Your task to perform on an android device: Do I have any events tomorrow? Image 0: 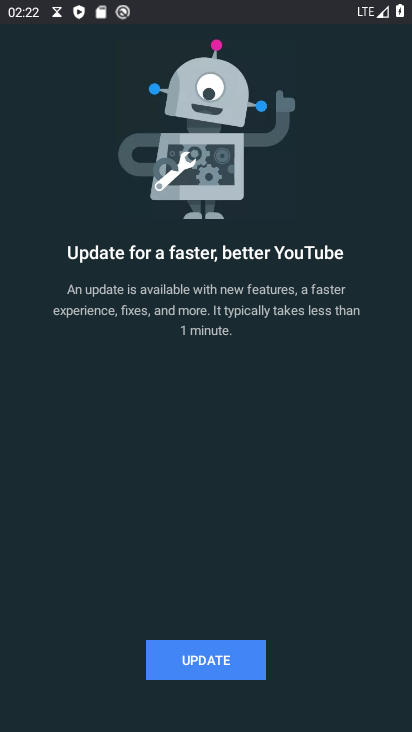
Step 0: drag from (236, 641) to (329, 551)
Your task to perform on an android device: Do I have any events tomorrow? Image 1: 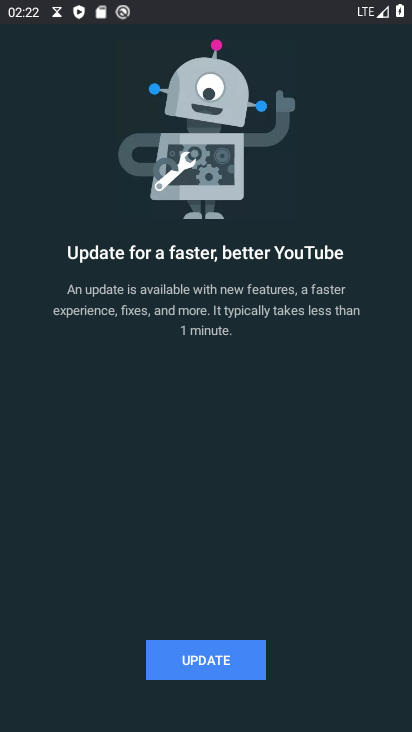
Step 1: press home button
Your task to perform on an android device: Do I have any events tomorrow? Image 2: 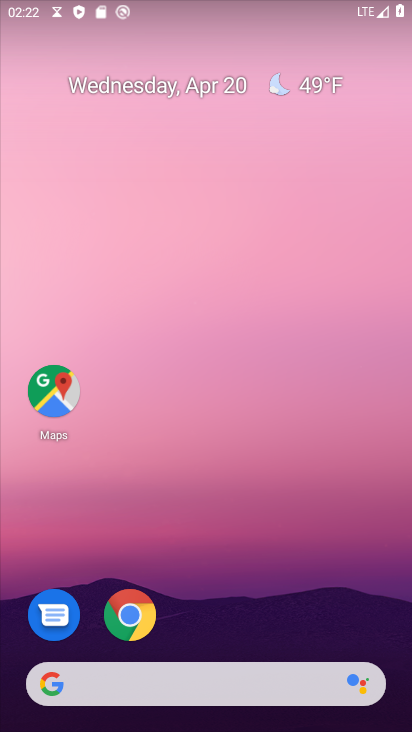
Step 2: drag from (280, 611) to (297, 306)
Your task to perform on an android device: Do I have any events tomorrow? Image 3: 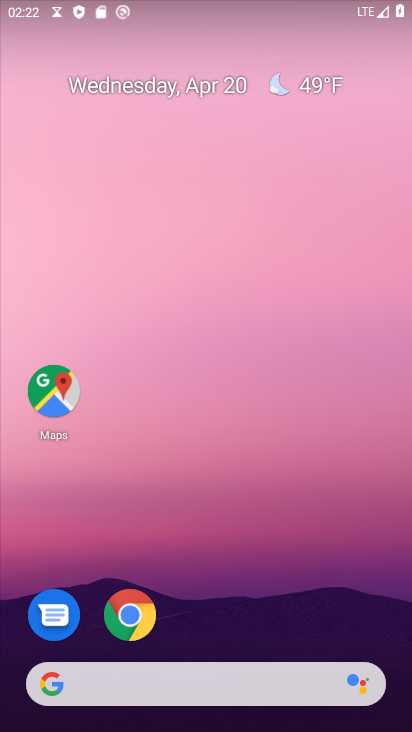
Step 3: drag from (219, 579) to (308, 303)
Your task to perform on an android device: Do I have any events tomorrow? Image 4: 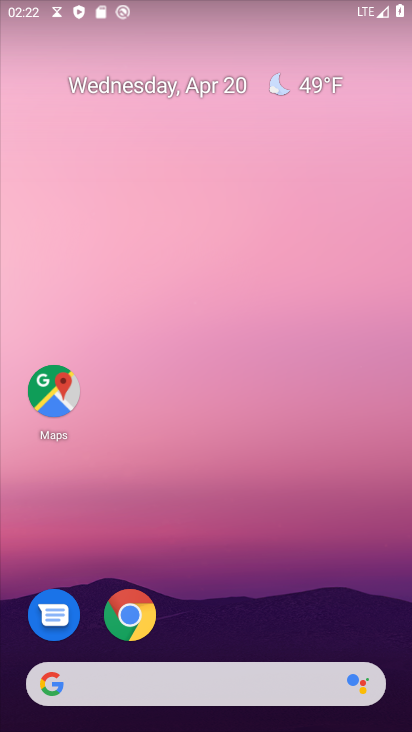
Step 4: drag from (248, 612) to (221, 143)
Your task to perform on an android device: Do I have any events tomorrow? Image 5: 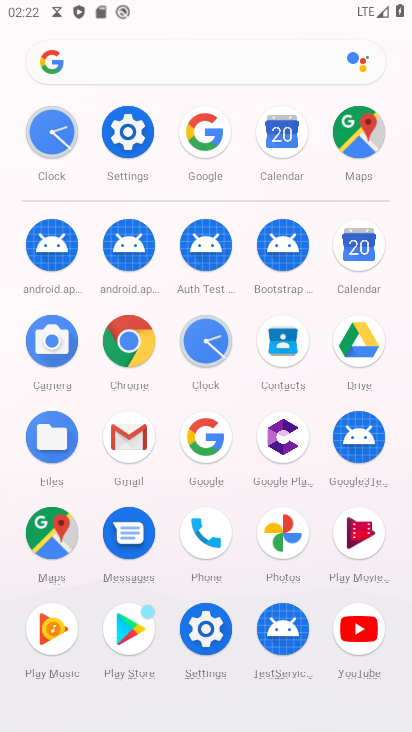
Step 5: click (364, 270)
Your task to perform on an android device: Do I have any events tomorrow? Image 6: 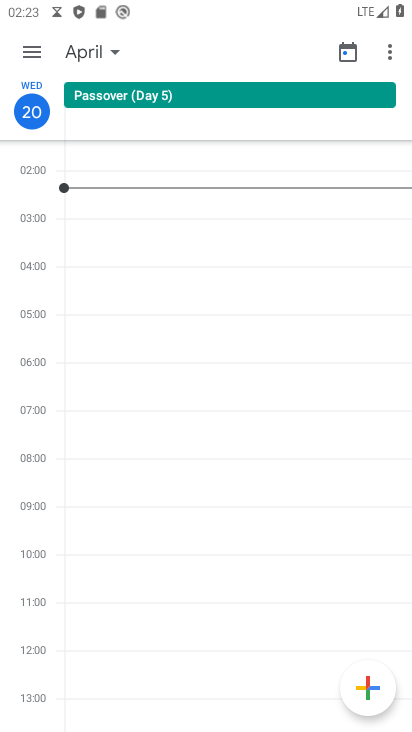
Step 6: click (97, 54)
Your task to perform on an android device: Do I have any events tomorrow? Image 7: 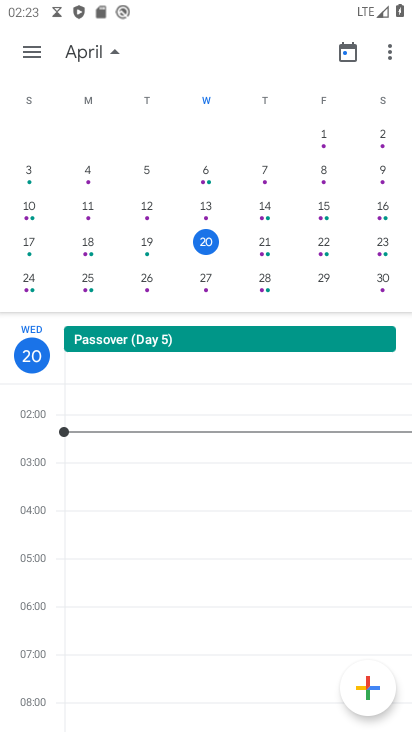
Step 7: click (257, 245)
Your task to perform on an android device: Do I have any events tomorrow? Image 8: 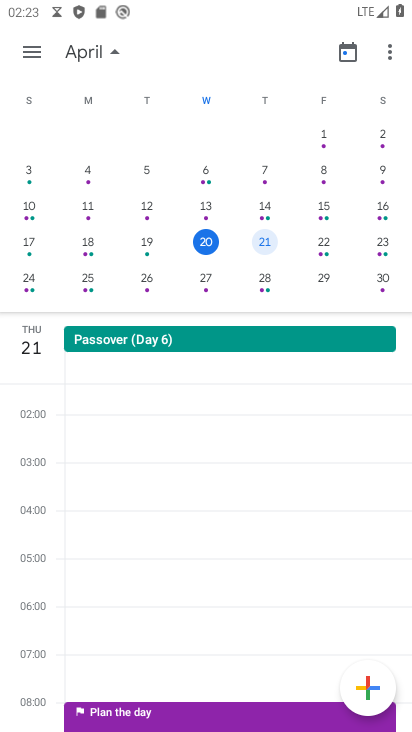
Step 8: drag from (223, 585) to (231, 302)
Your task to perform on an android device: Do I have any events tomorrow? Image 9: 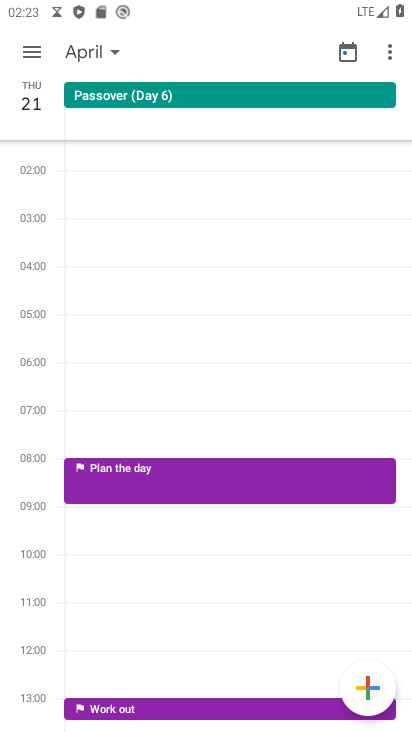
Step 9: click (173, 480)
Your task to perform on an android device: Do I have any events tomorrow? Image 10: 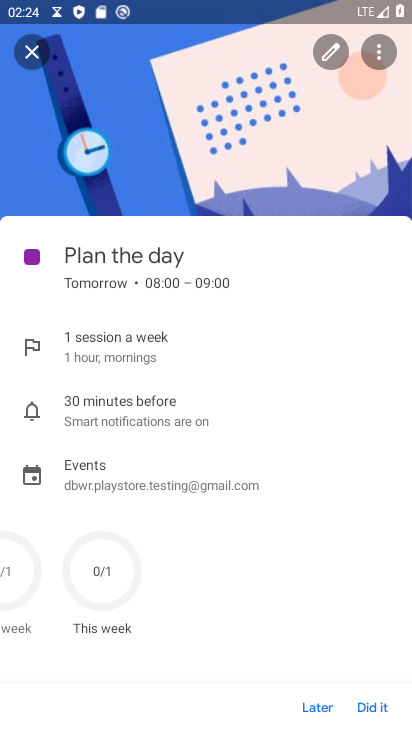
Step 10: task complete